Your task to perform on an android device: empty trash in the gmail app Image 0: 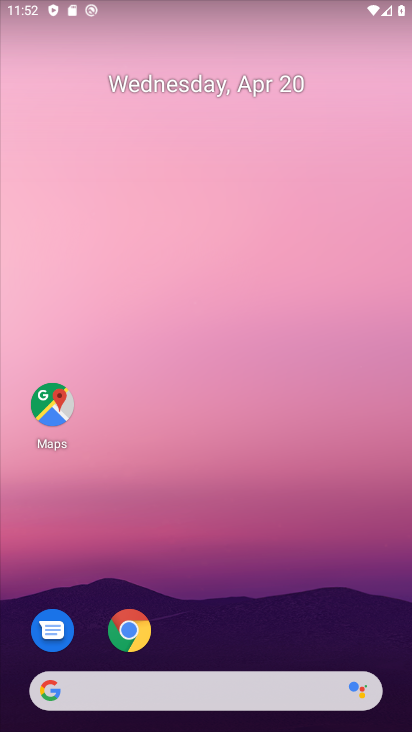
Step 0: drag from (303, 579) to (265, 106)
Your task to perform on an android device: empty trash in the gmail app Image 1: 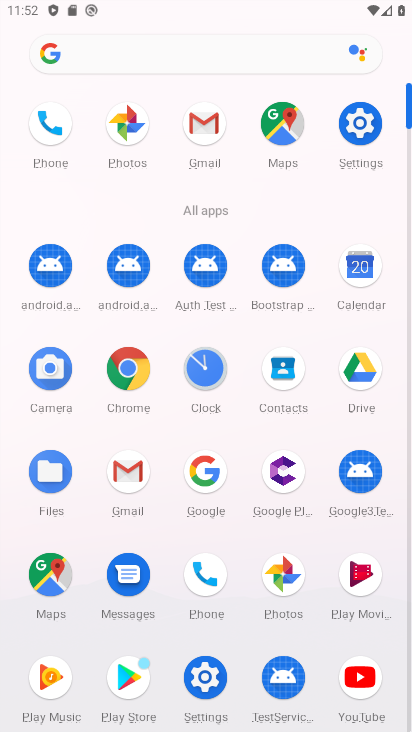
Step 1: click (214, 136)
Your task to perform on an android device: empty trash in the gmail app Image 2: 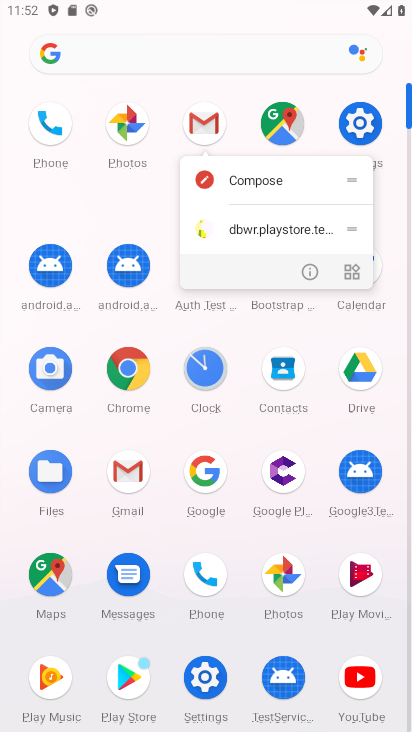
Step 2: click (212, 133)
Your task to perform on an android device: empty trash in the gmail app Image 3: 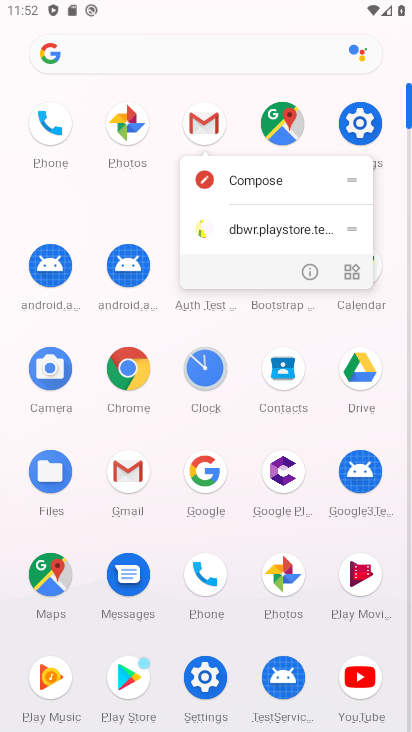
Step 3: click (212, 133)
Your task to perform on an android device: empty trash in the gmail app Image 4: 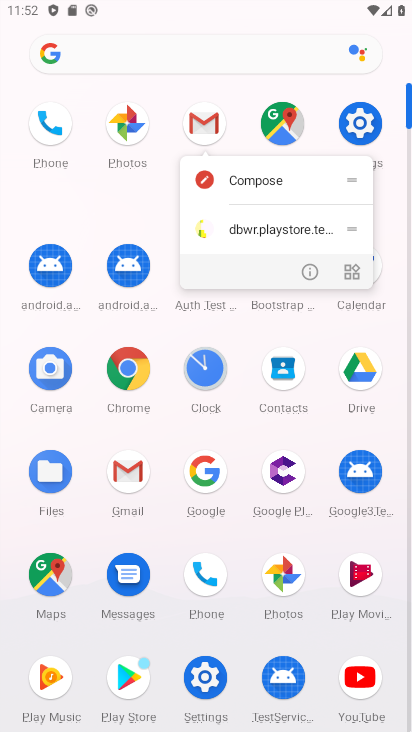
Step 4: click (210, 116)
Your task to perform on an android device: empty trash in the gmail app Image 5: 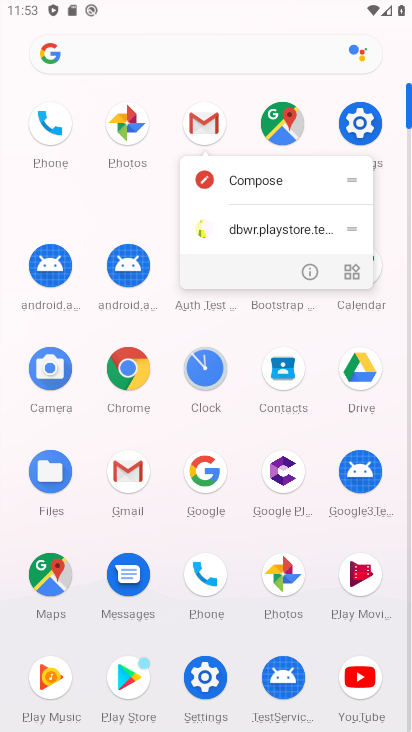
Step 5: click (211, 117)
Your task to perform on an android device: empty trash in the gmail app Image 6: 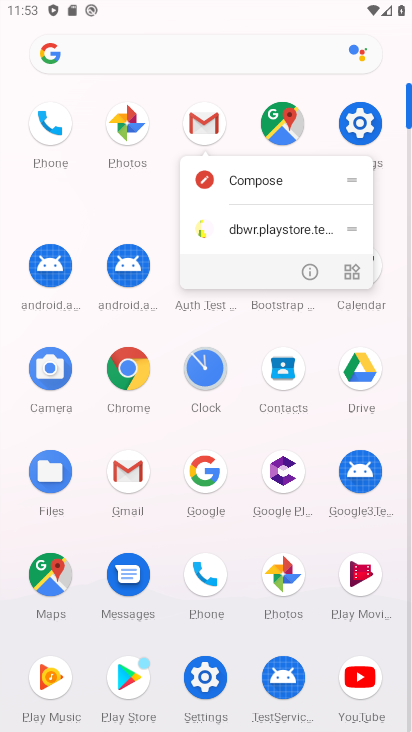
Step 6: click (204, 120)
Your task to perform on an android device: empty trash in the gmail app Image 7: 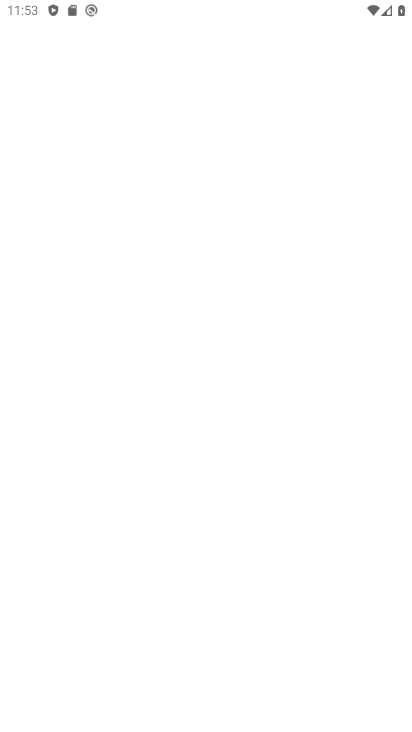
Step 7: click (204, 120)
Your task to perform on an android device: empty trash in the gmail app Image 8: 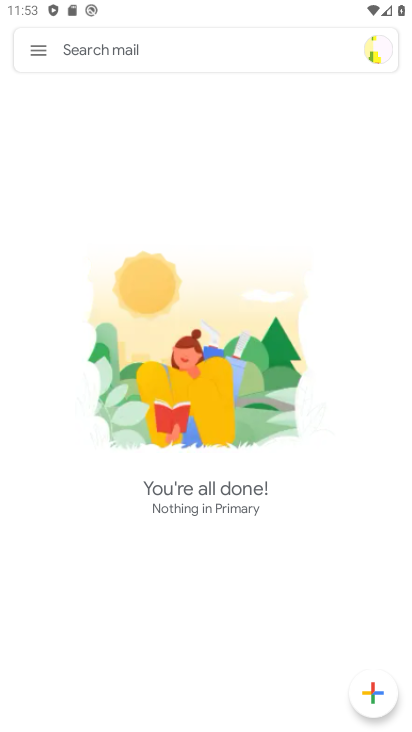
Step 8: click (33, 52)
Your task to perform on an android device: empty trash in the gmail app Image 9: 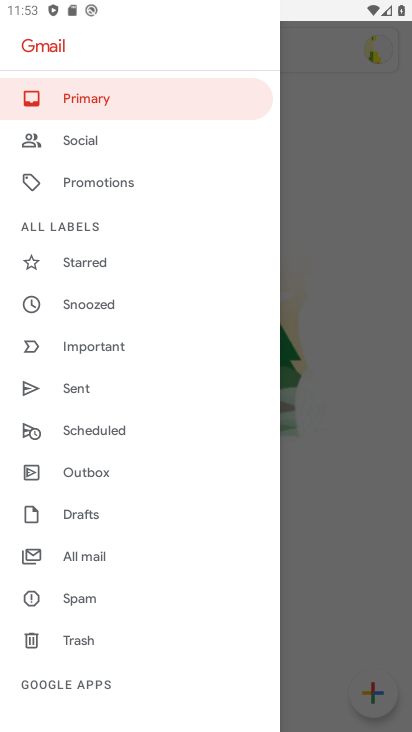
Step 9: click (89, 634)
Your task to perform on an android device: empty trash in the gmail app Image 10: 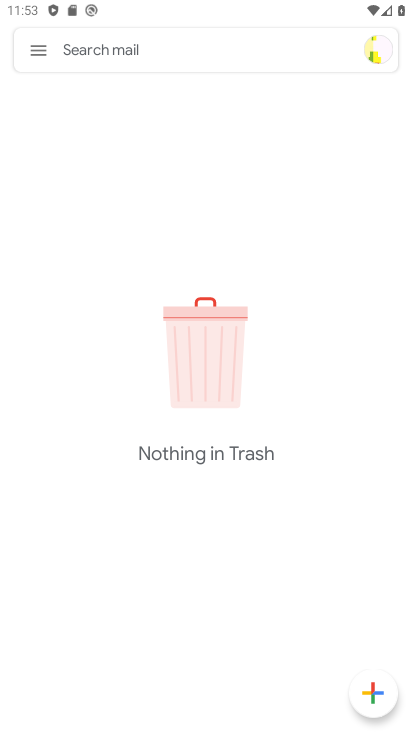
Step 10: task complete